Your task to perform on an android device: Open the calendar and show me this week's events? Image 0: 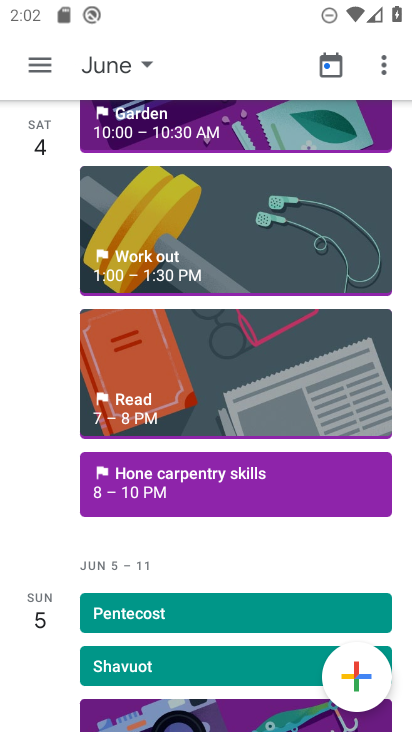
Step 0: click (125, 76)
Your task to perform on an android device: Open the calendar and show me this week's events? Image 1: 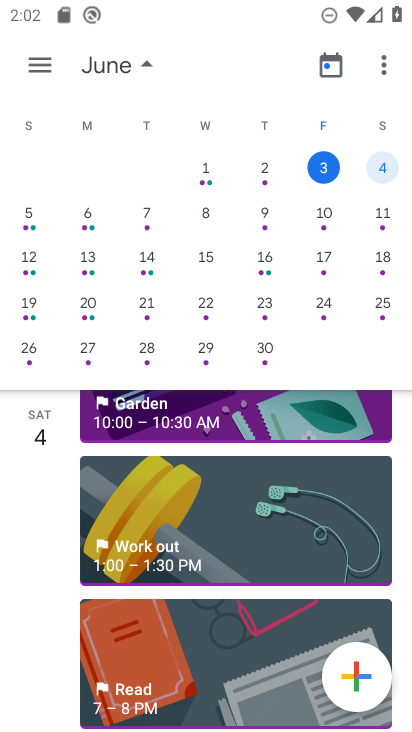
Step 1: click (327, 160)
Your task to perform on an android device: Open the calendar and show me this week's events? Image 2: 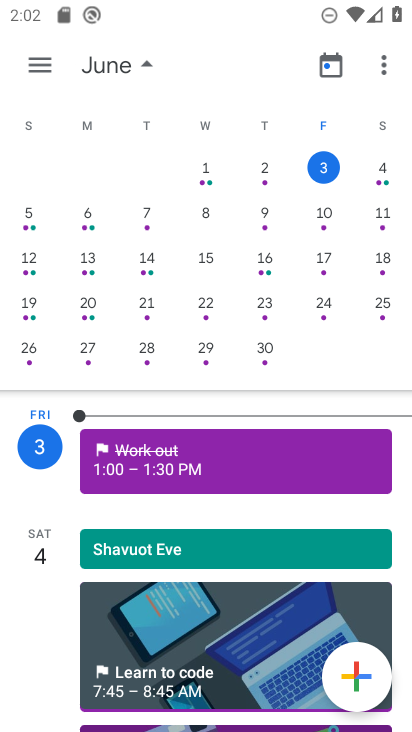
Step 2: task complete